Your task to perform on an android device: Go to wifi settings Image 0: 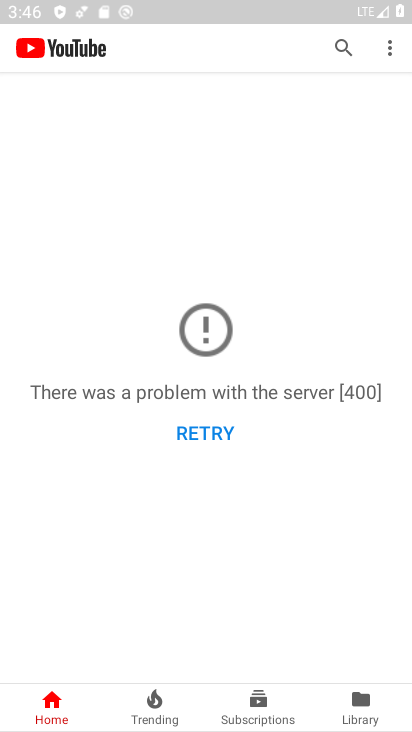
Step 0: press home button
Your task to perform on an android device: Go to wifi settings Image 1: 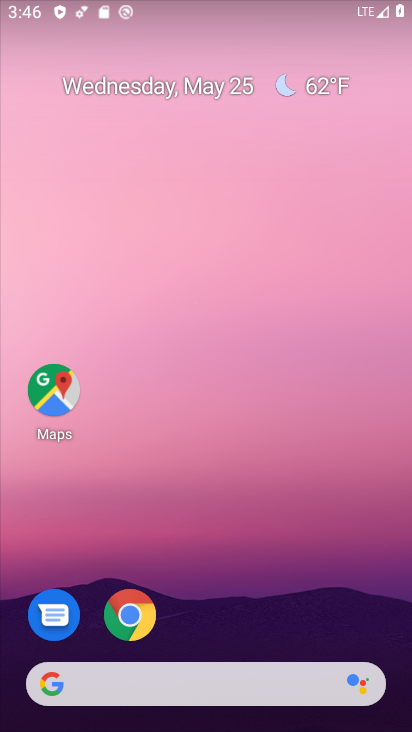
Step 1: drag from (301, 360) to (211, 29)
Your task to perform on an android device: Go to wifi settings Image 2: 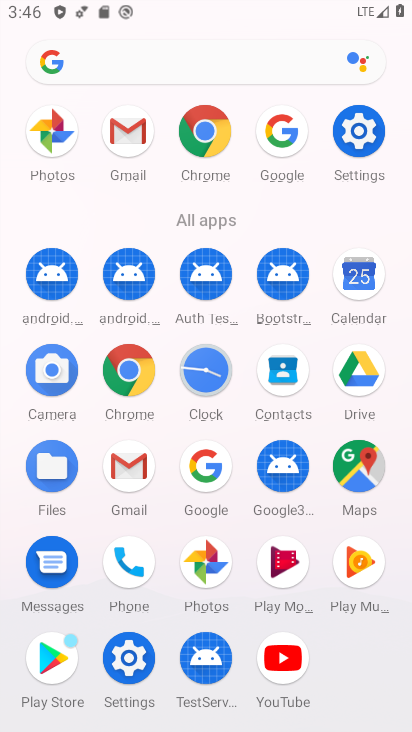
Step 2: click (361, 126)
Your task to perform on an android device: Go to wifi settings Image 3: 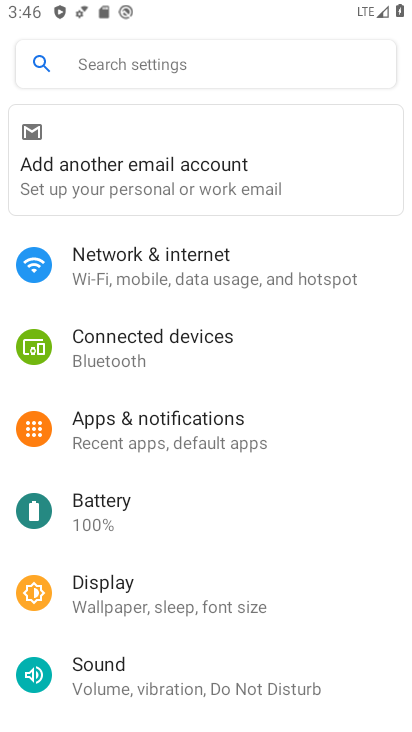
Step 3: click (193, 266)
Your task to perform on an android device: Go to wifi settings Image 4: 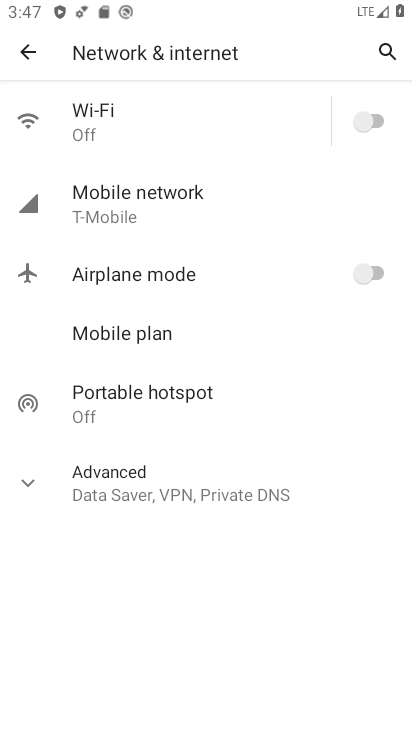
Step 4: click (206, 121)
Your task to perform on an android device: Go to wifi settings Image 5: 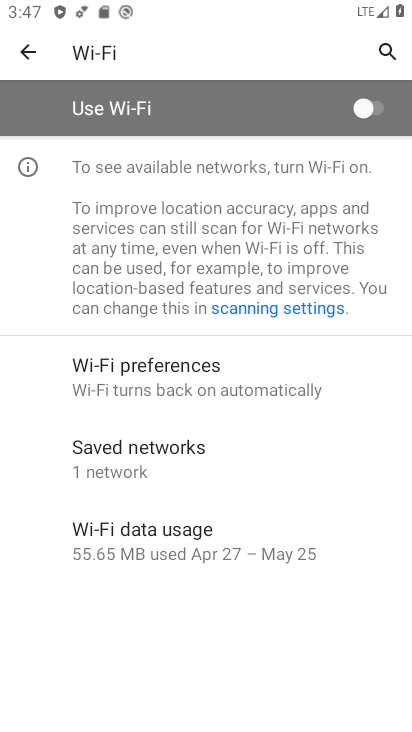
Step 5: task complete